Your task to perform on an android device: open wifi settings Image 0: 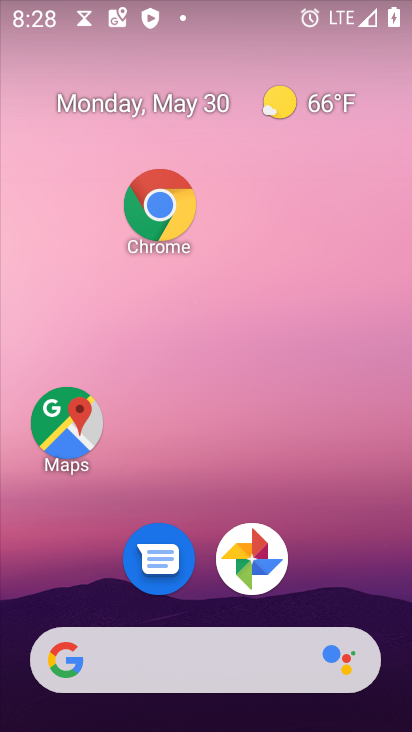
Step 0: drag from (204, 705) to (138, 161)
Your task to perform on an android device: open wifi settings Image 1: 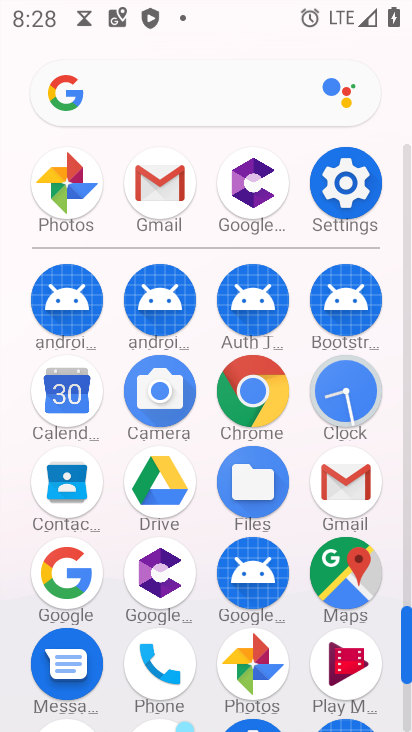
Step 1: click (352, 212)
Your task to perform on an android device: open wifi settings Image 2: 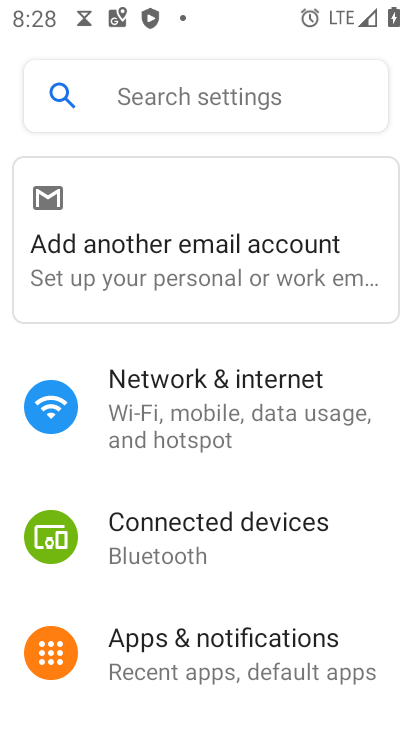
Step 2: click (220, 403)
Your task to perform on an android device: open wifi settings Image 3: 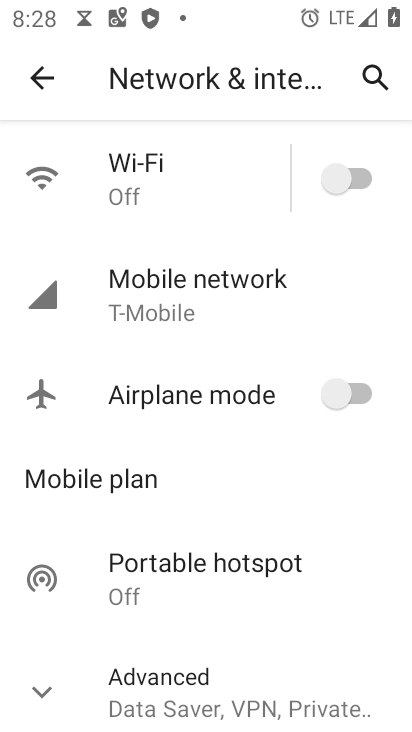
Step 3: click (328, 163)
Your task to perform on an android device: open wifi settings Image 4: 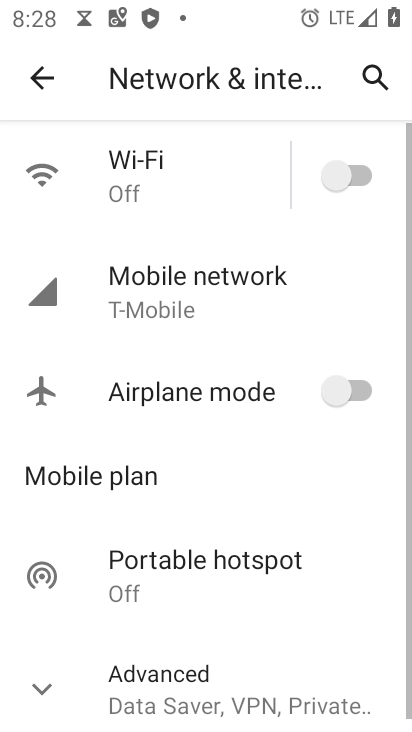
Step 4: click (345, 173)
Your task to perform on an android device: open wifi settings Image 5: 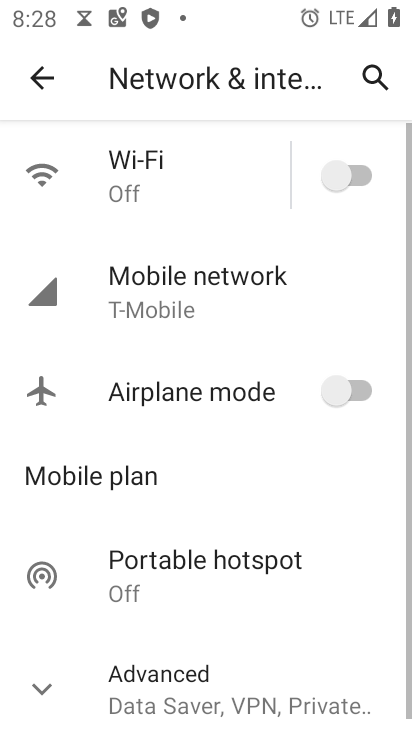
Step 5: click (345, 172)
Your task to perform on an android device: open wifi settings Image 6: 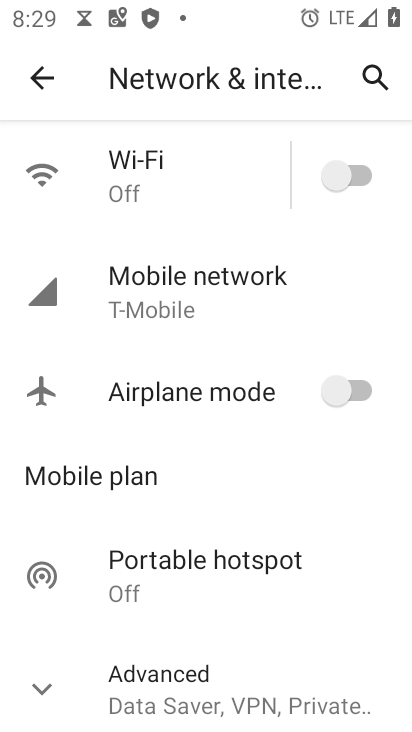
Step 6: task complete